Your task to perform on an android device: turn on showing notifications on the lock screen Image 0: 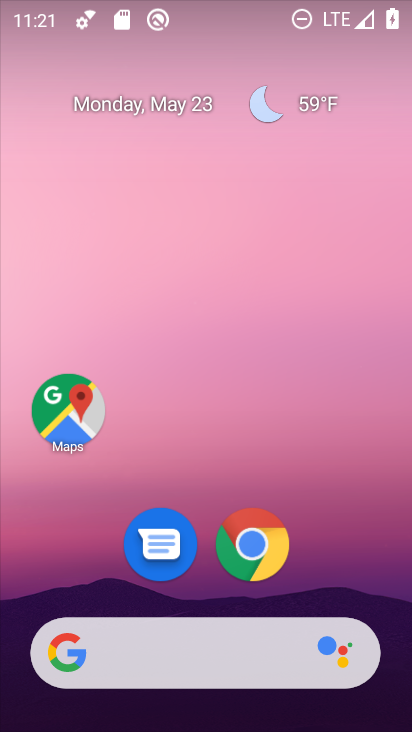
Step 0: drag from (395, 634) to (333, 86)
Your task to perform on an android device: turn on showing notifications on the lock screen Image 1: 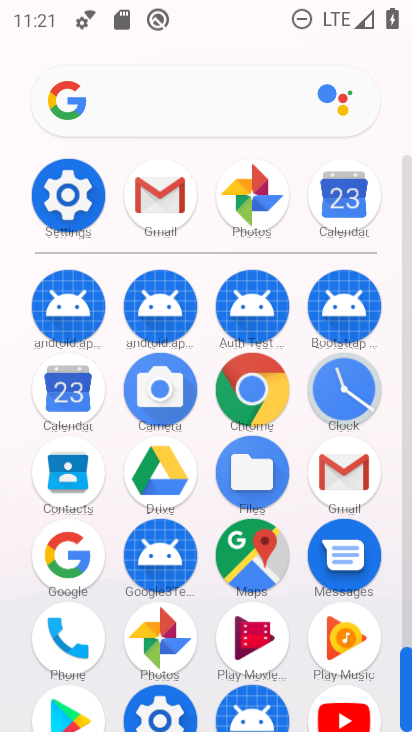
Step 1: drag from (407, 628) to (400, 547)
Your task to perform on an android device: turn on showing notifications on the lock screen Image 2: 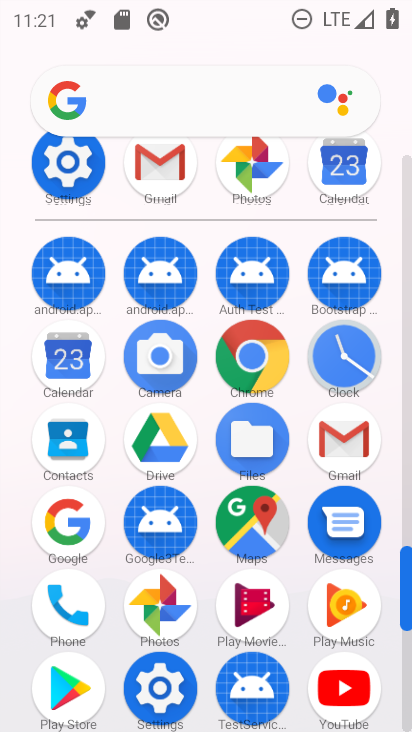
Step 2: click (160, 685)
Your task to perform on an android device: turn on showing notifications on the lock screen Image 3: 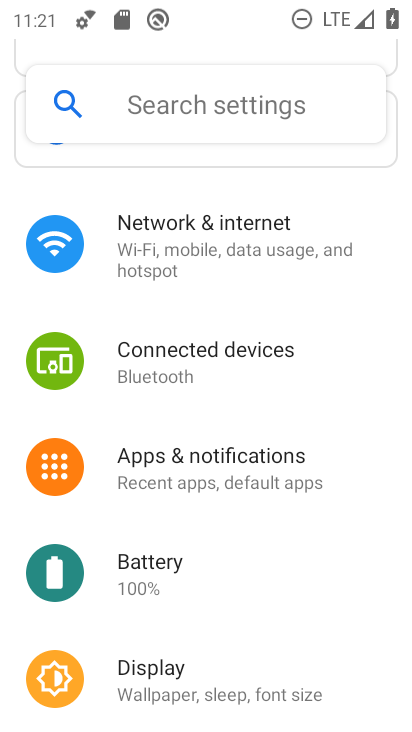
Step 3: click (174, 471)
Your task to perform on an android device: turn on showing notifications on the lock screen Image 4: 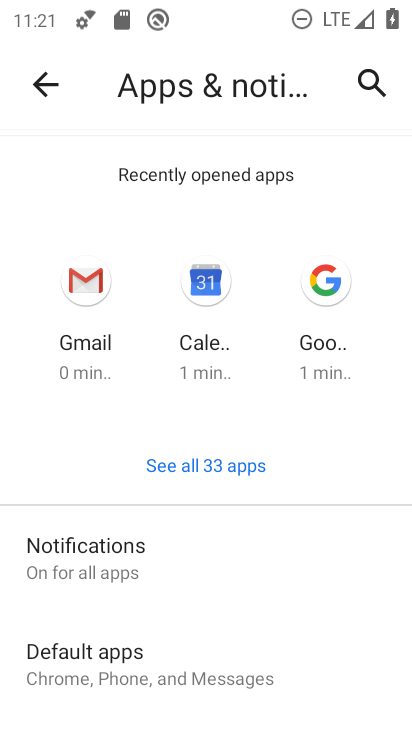
Step 4: click (114, 550)
Your task to perform on an android device: turn on showing notifications on the lock screen Image 5: 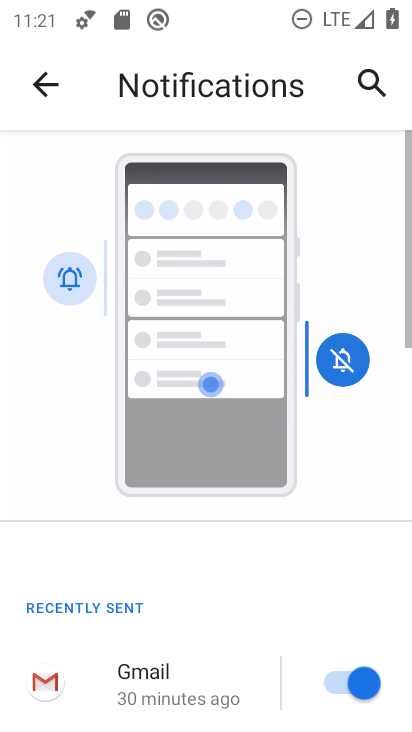
Step 5: drag from (266, 647) to (217, 149)
Your task to perform on an android device: turn on showing notifications on the lock screen Image 6: 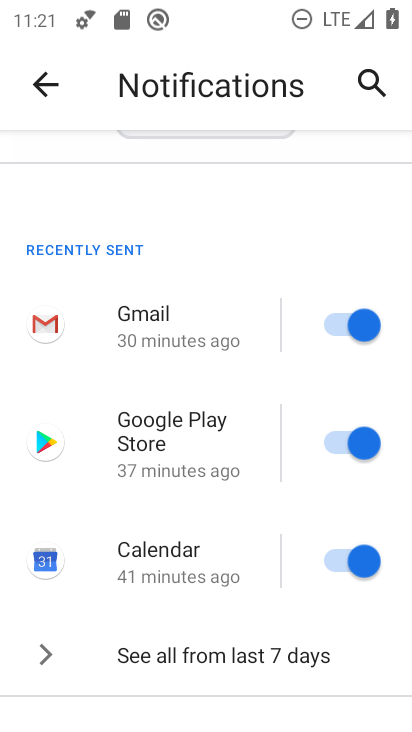
Step 6: drag from (283, 634) to (253, 142)
Your task to perform on an android device: turn on showing notifications on the lock screen Image 7: 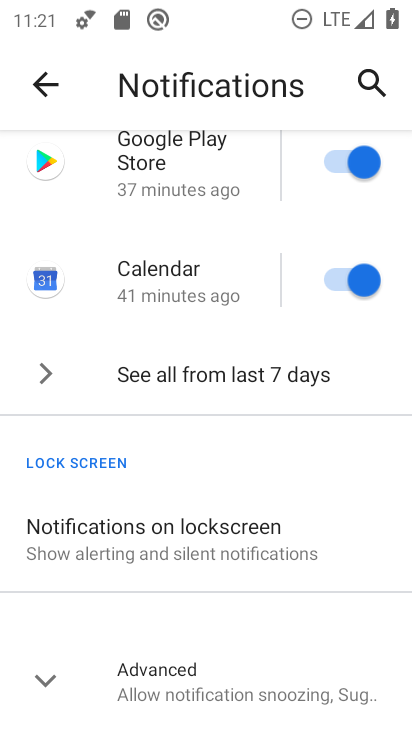
Step 7: click (143, 536)
Your task to perform on an android device: turn on showing notifications on the lock screen Image 8: 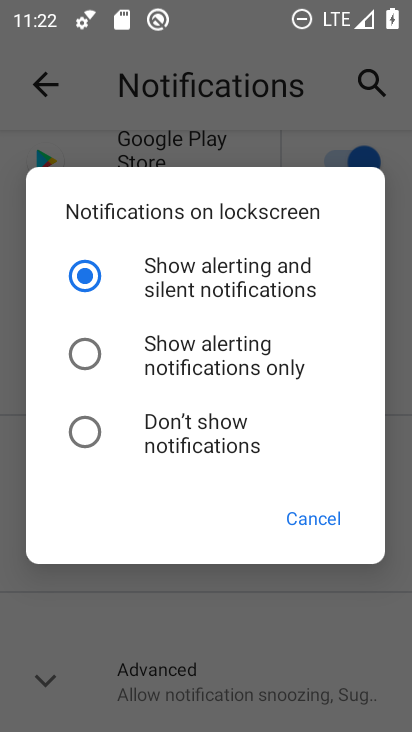
Step 8: task complete